Your task to perform on an android device: check the backup settings in the google photos Image 0: 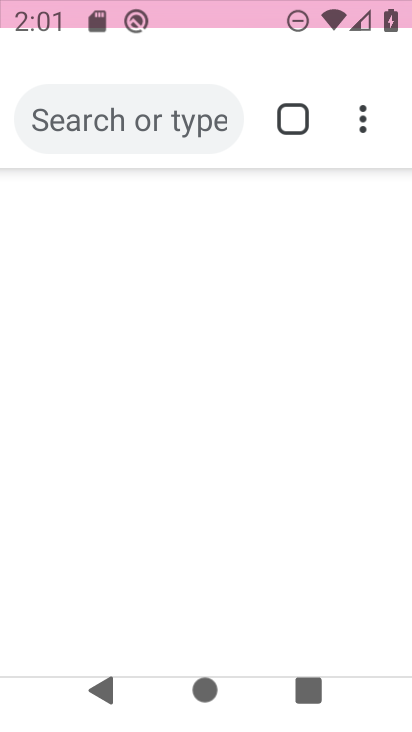
Step 0: click (363, 444)
Your task to perform on an android device: check the backup settings in the google photos Image 1: 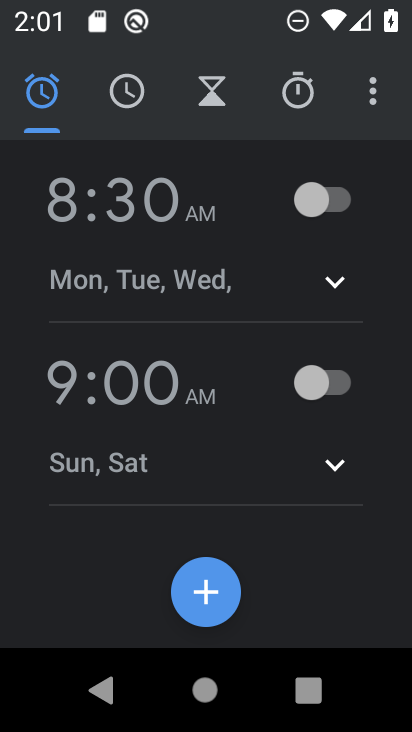
Step 1: press home button
Your task to perform on an android device: check the backup settings in the google photos Image 2: 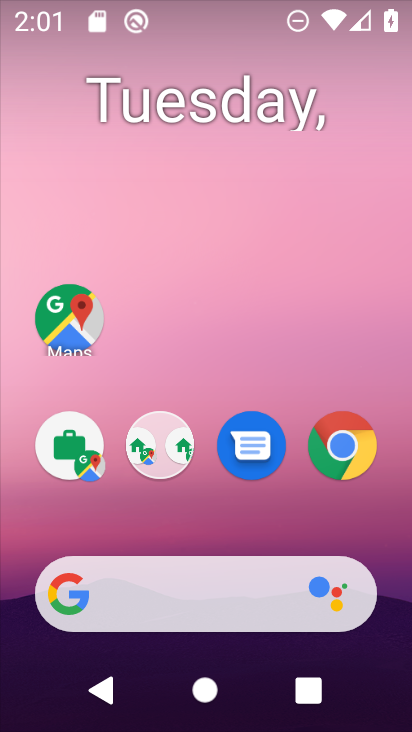
Step 2: drag from (308, 440) to (345, 83)
Your task to perform on an android device: check the backup settings in the google photos Image 3: 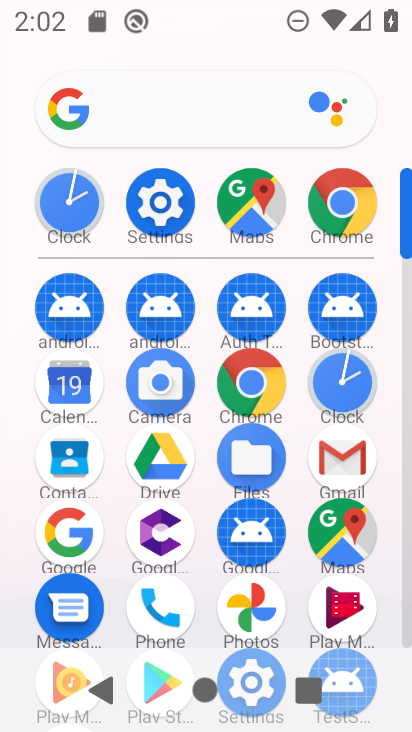
Step 3: click (261, 600)
Your task to perform on an android device: check the backup settings in the google photos Image 4: 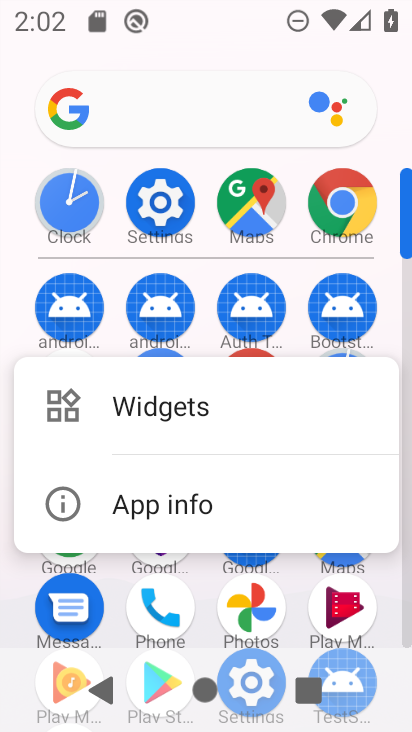
Step 4: click (265, 616)
Your task to perform on an android device: check the backup settings in the google photos Image 5: 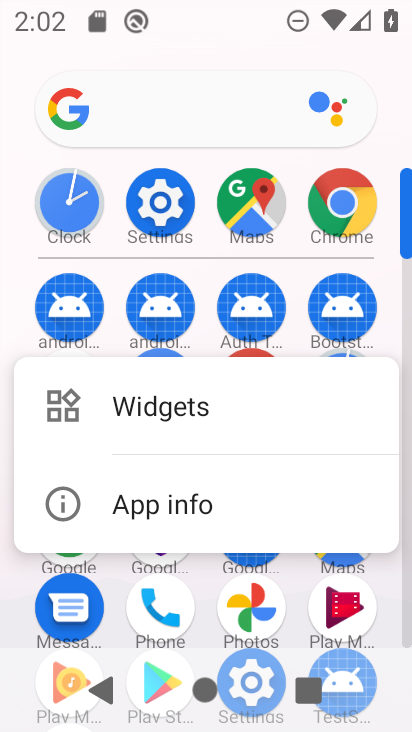
Step 5: click (265, 614)
Your task to perform on an android device: check the backup settings in the google photos Image 6: 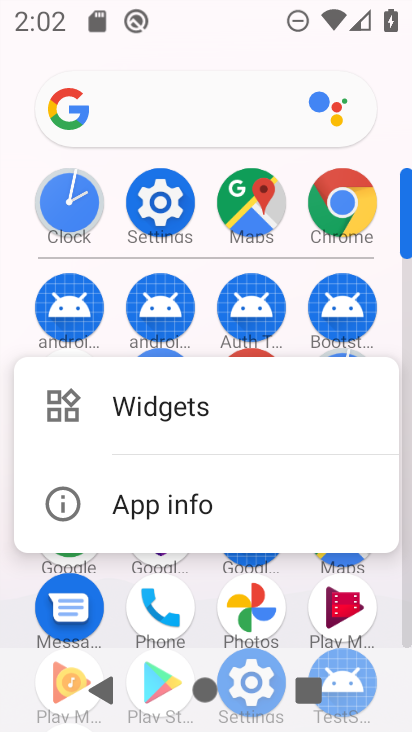
Step 6: click (246, 605)
Your task to perform on an android device: check the backup settings in the google photos Image 7: 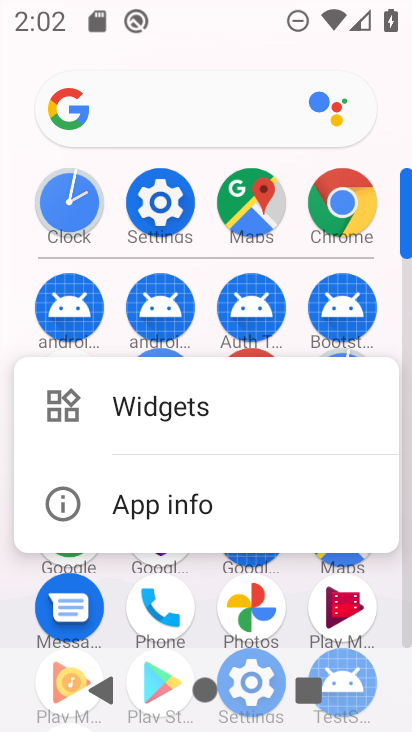
Step 7: click (262, 613)
Your task to perform on an android device: check the backup settings in the google photos Image 8: 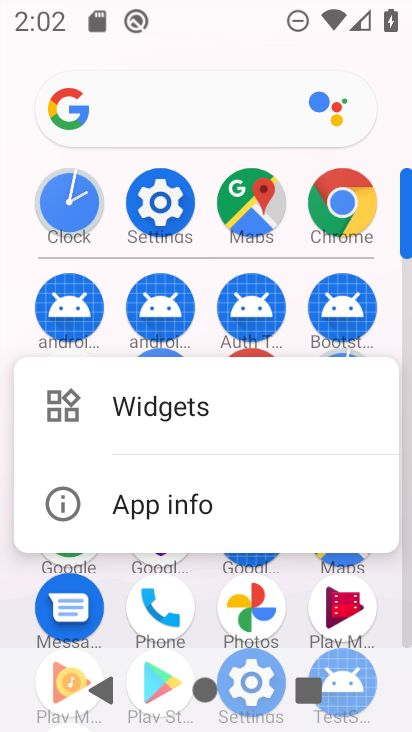
Step 8: click (262, 613)
Your task to perform on an android device: check the backup settings in the google photos Image 9: 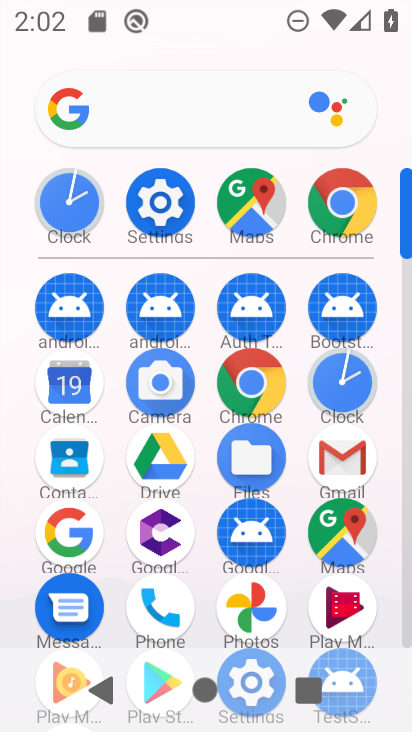
Step 9: click (259, 616)
Your task to perform on an android device: check the backup settings in the google photos Image 10: 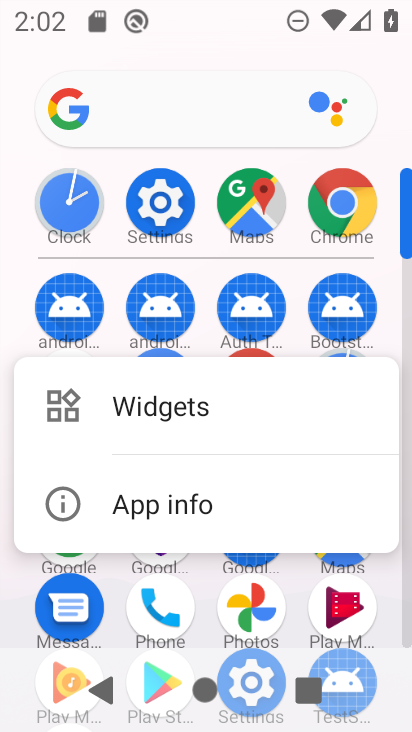
Step 10: click (257, 606)
Your task to perform on an android device: check the backup settings in the google photos Image 11: 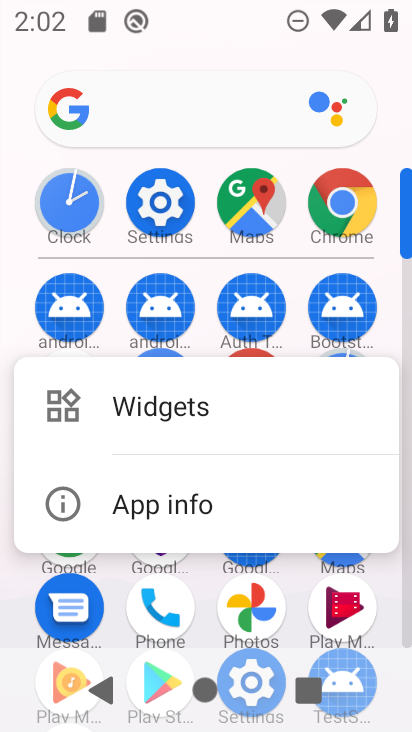
Step 11: click (257, 606)
Your task to perform on an android device: check the backup settings in the google photos Image 12: 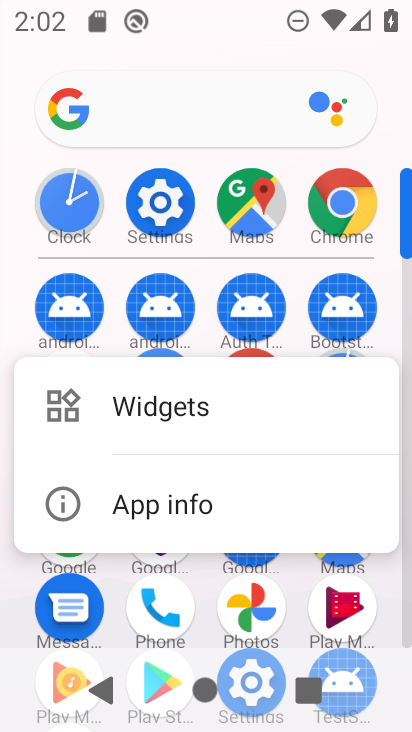
Step 12: task complete